Your task to perform on an android device: Search for pizza restaurants on Maps Image 0: 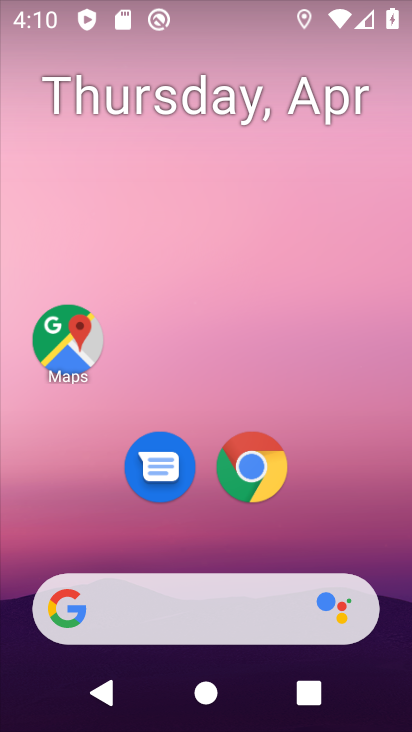
Step 0: click (96, 348)
Your task to perform on an android device: Search for pizza restaurants on Maps Image 1: 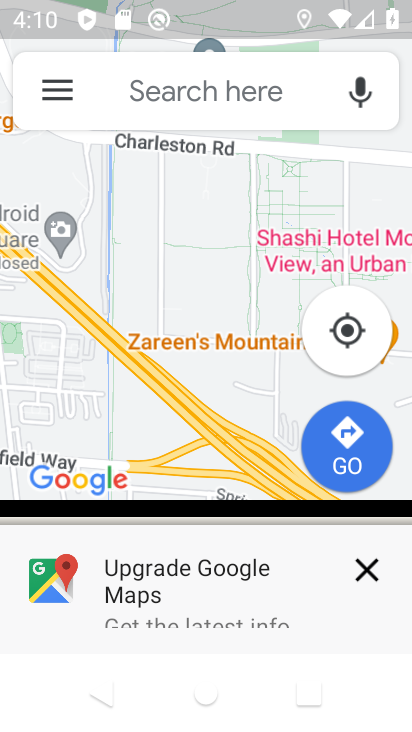
Step 1: click (200, 99)
Your task to perform on an android device: Search for pizza restaurants on Maps Image 2: 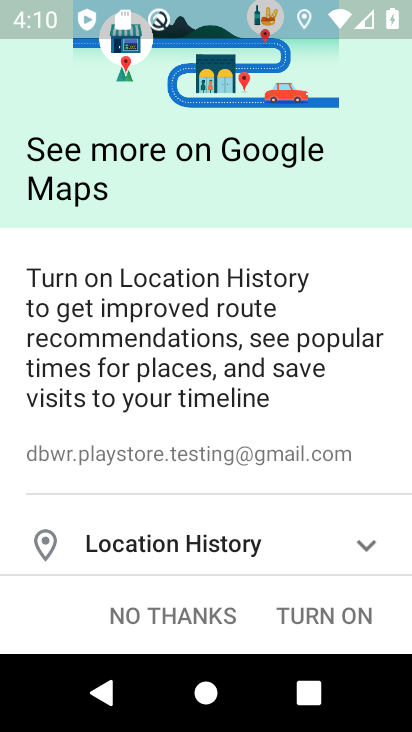
Step 2: click (188, 604)
Your task to perform on an android device: Search for pizza restaurants on Maps Image 3: 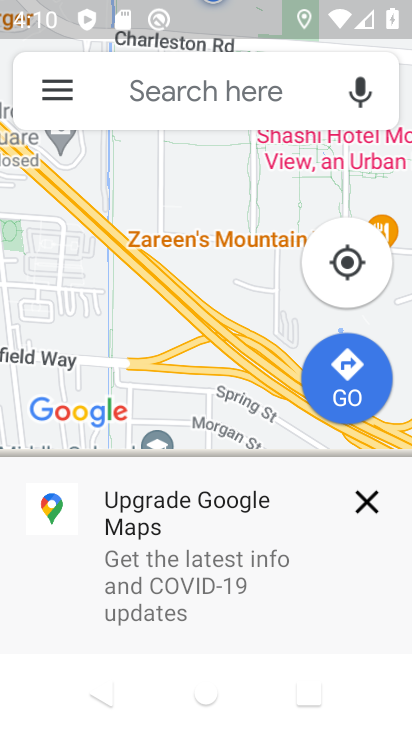
Step 3: click (360, 497)
Your task to perform on an android device: Search for pizza restaurants on Maps Image 4: 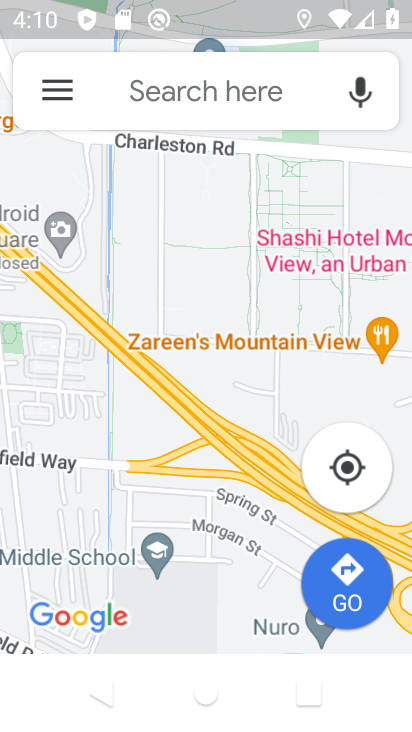
Step 4: click (150, 84)
Your task to perform on an android device: Search for pizza restaurants on Maps Image 5: 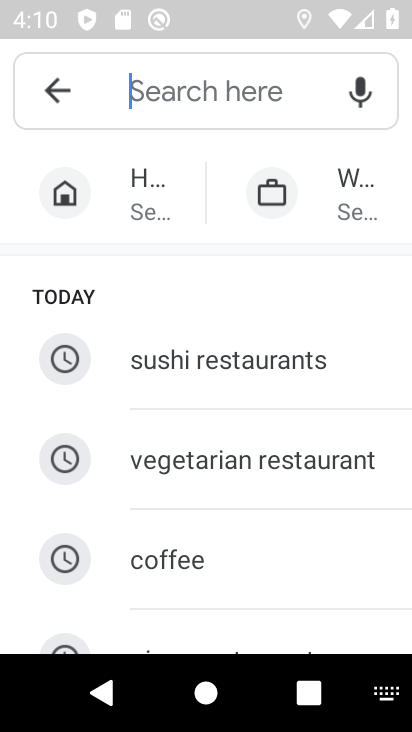
Step 5: type "pizza restaurants"
Your task to perform on an android device: Search for pizza restaurants on Maps Image 6: 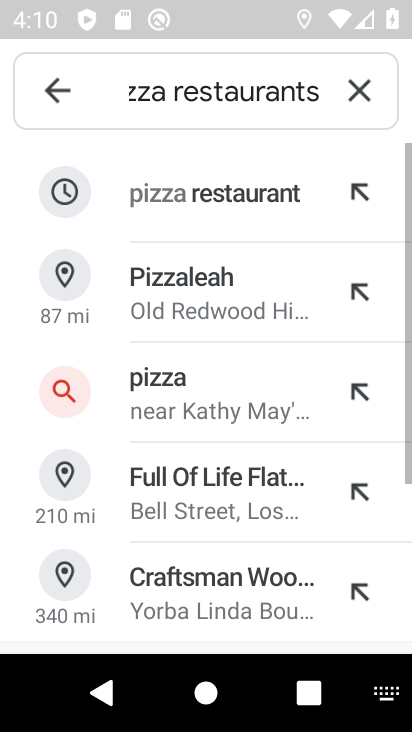
Step 6: click (204, 216)
Your task to perform on an android device: Search for pizza restaurants on Maps Image 7: 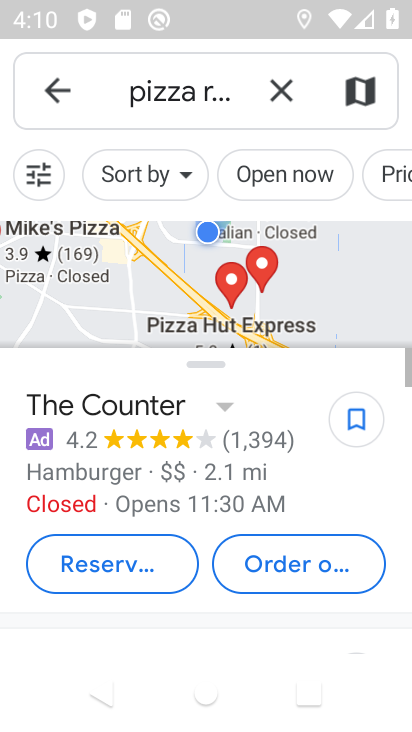
Step 7: task complete